Your task to perform on an android device: open a bookmark in the chrome app Image 0: 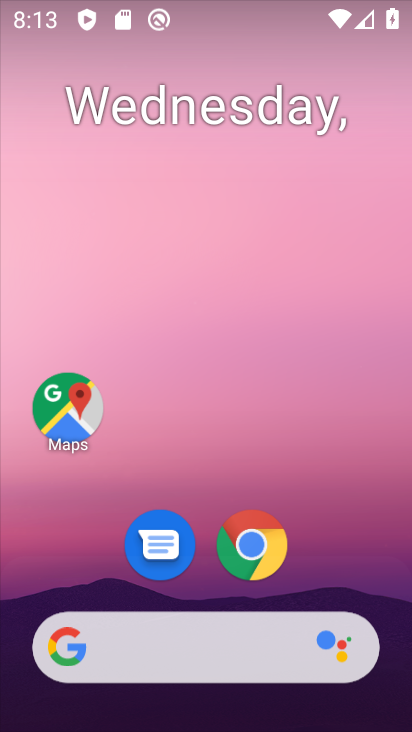
Step 0: click (243, 556)
Your task to perform on an android device: open a bookmark in the chrome app Image 1: 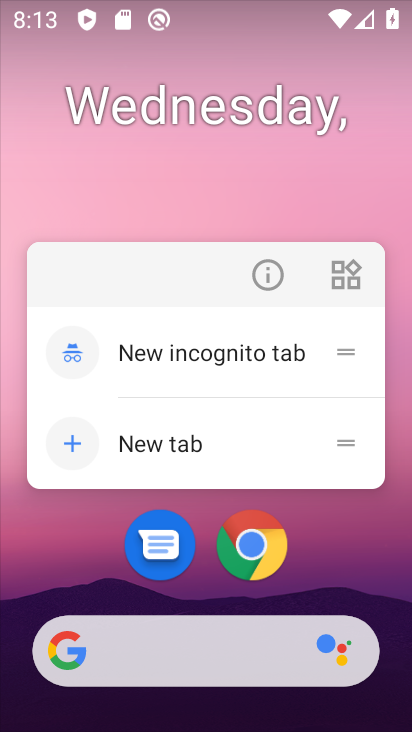
Step 1: click (251, 540)
Your task to perform on an android device: open a bookmark in the chrome app Image 2: 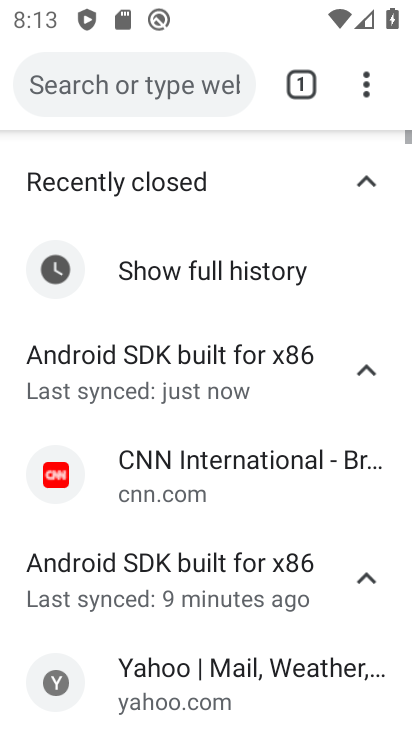
Step 2: drag from (373, 83) to (163, 326)
Your task to perform on an android device: open a bookmark in the chrome app Image 3: 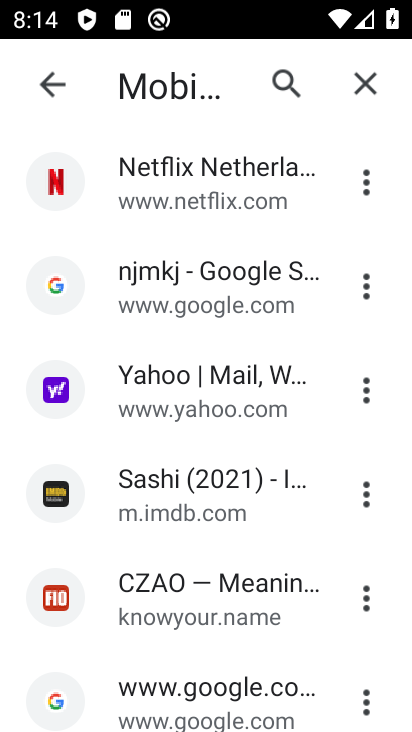
Step 3: click (205, 405)
Your task to perform on an android device: open a bookmark in the chrome app Image 4: 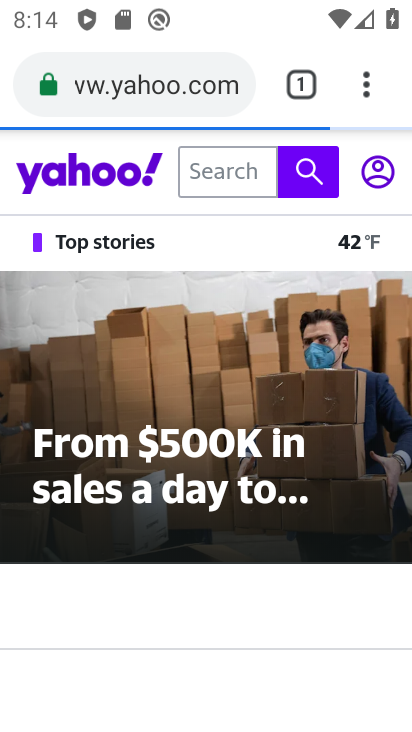
Step 4: task complete